Your task to perform on an android device: Go to eBay Image 0: 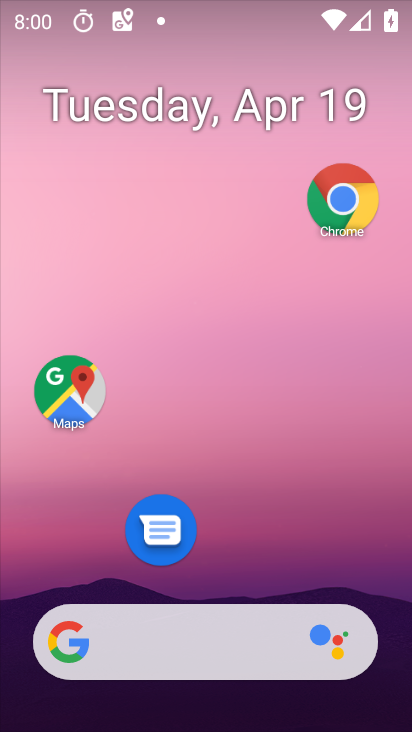
Step 0: click (344, 194)
Your task to perform on an android device: Go to eBay Image 1: 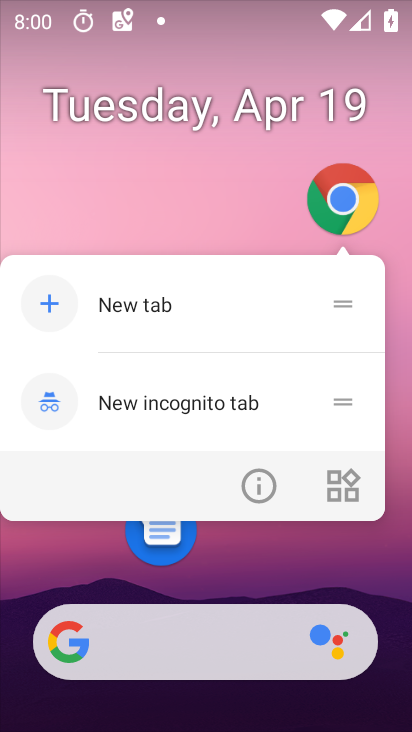
Step 1: click (242, 491)
Your task to perform on an android device: Go to eBay Image 2: 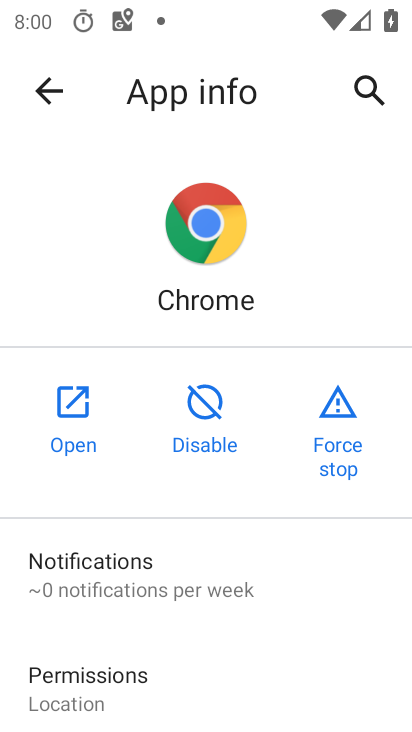
Step 2: click (39, 391)
Your task to perform on an android device: Go to eBay Image 3: 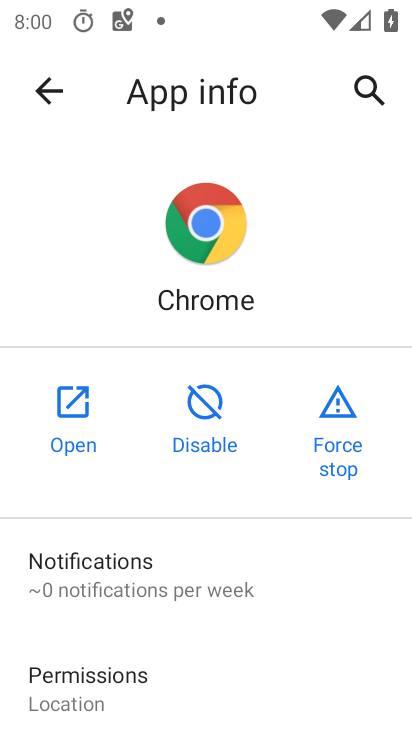
Step 3: click (55, 394)
Your task to perform on an android device: Go to eBay Image 4: 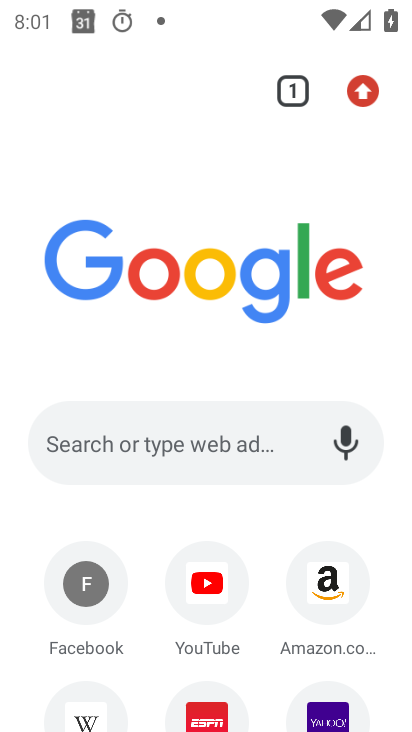
Step 4: drag from (144, 549) to (276, 211)
Your task to perform on an android device: Go to eBay Image 5: 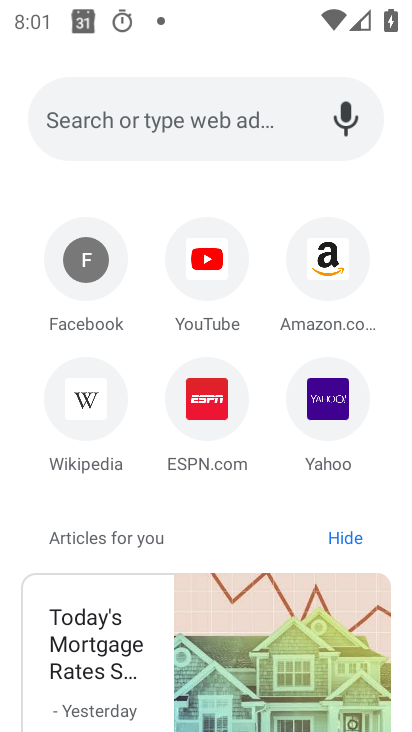
Step 5: click (206, 121)
Your task to perform on an android device: Go to eBay Image 6: 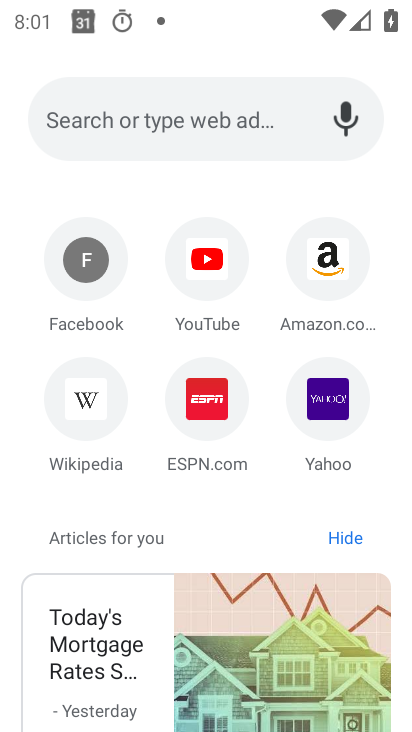
Step 6: click (172, 134)
Your task to perform on an android device: Go to eBay Image 7: 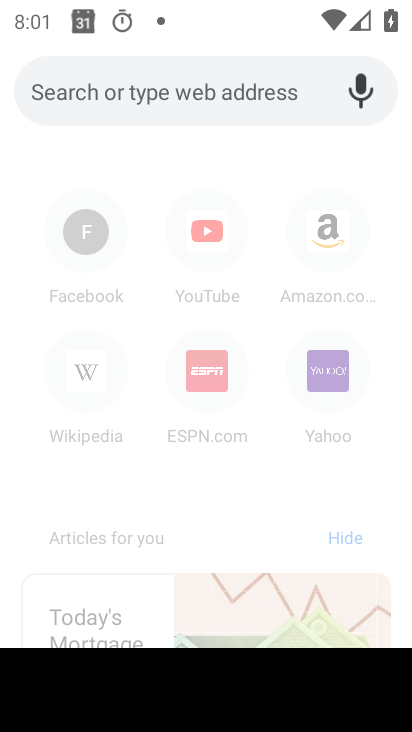
Step 7: type "ebay"
Your task to perform on an android device: Go to eBay Image 8: 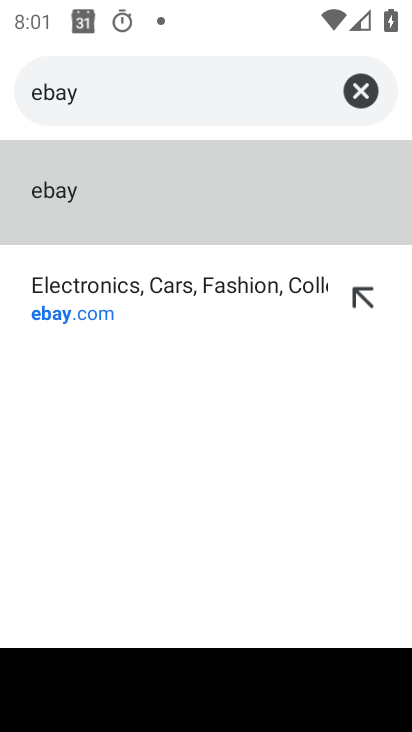
Step 8: click (127, 215)
Your task to perform on an android device: Go to eBay Image 9: 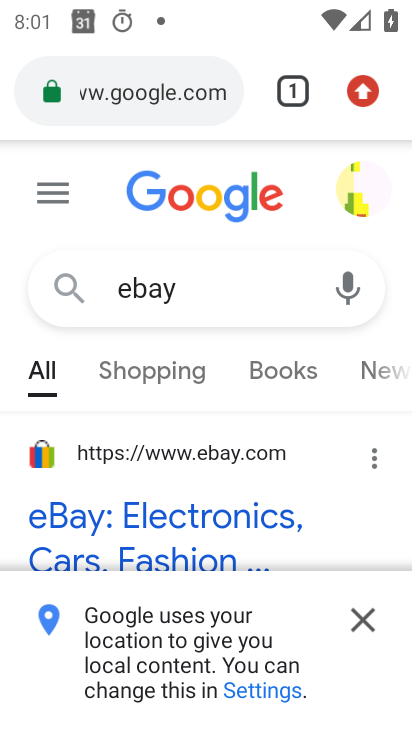
Step 9: click (169, 528)
Your task to perform on an android device: Go to eBay Image 10: 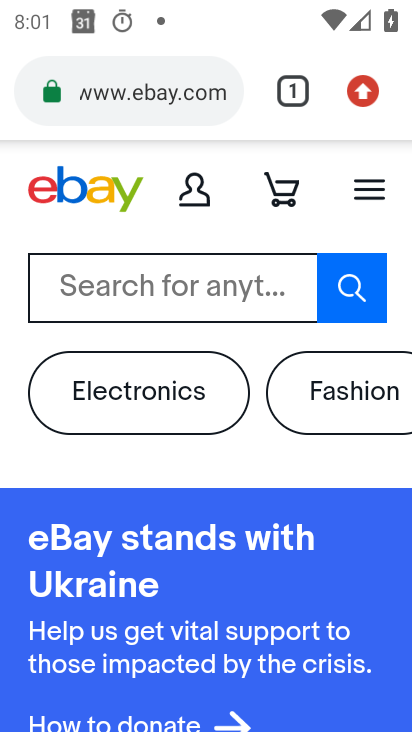
Step 10: task complete